Your task to perform on an android device: change the clock style Image 0: 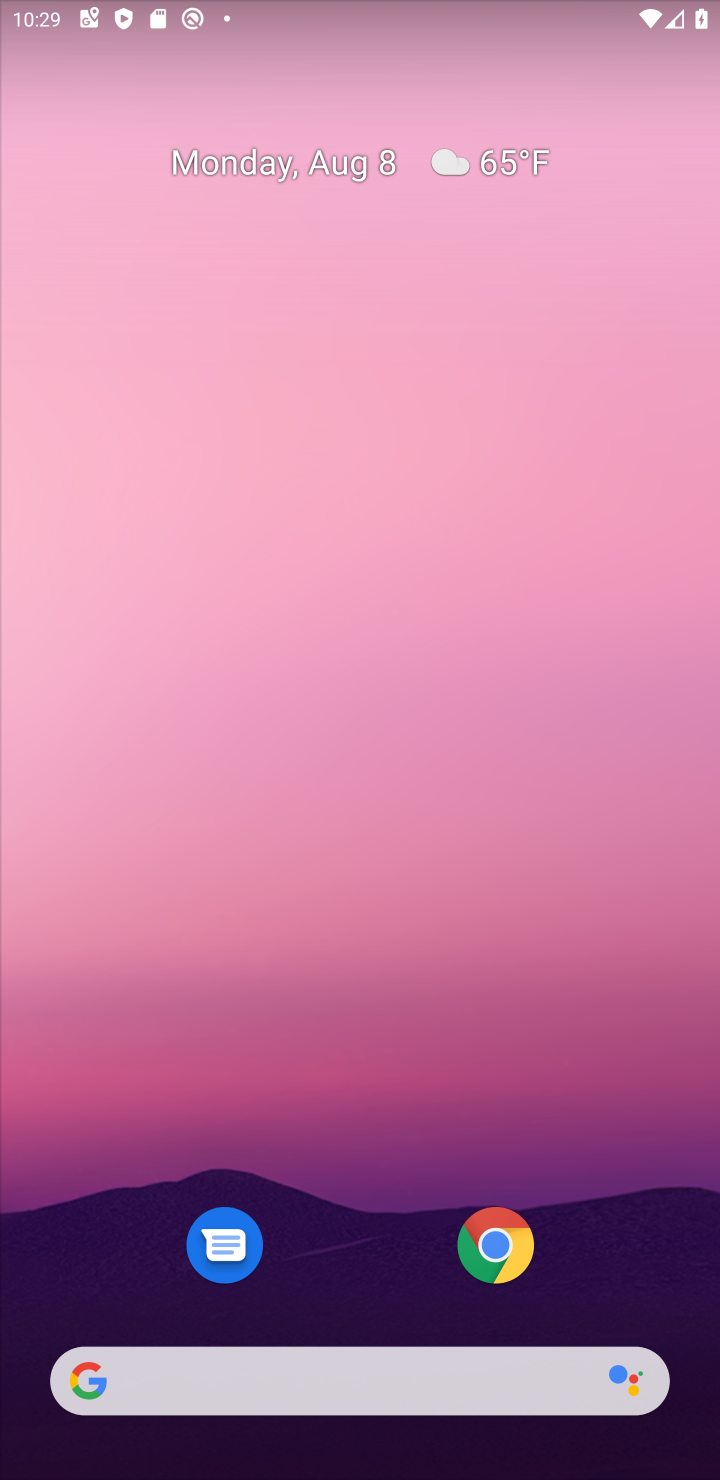
Step 0: drag from (381, 1134) to (304, 204)
Your task to perform on an android device: change the clock style Image 1: 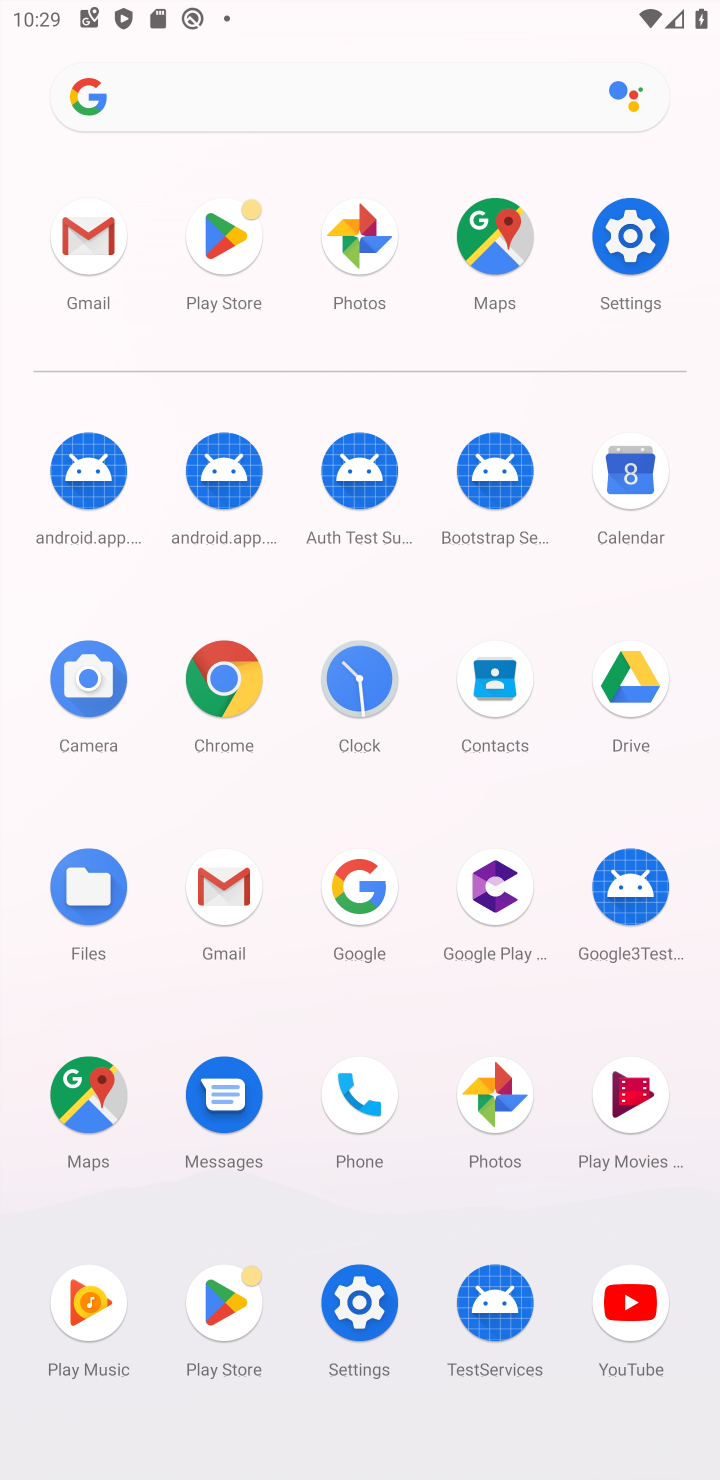
Step 1: click (360, 676)
Your task to perform on an android device: change the clock style Image 2: 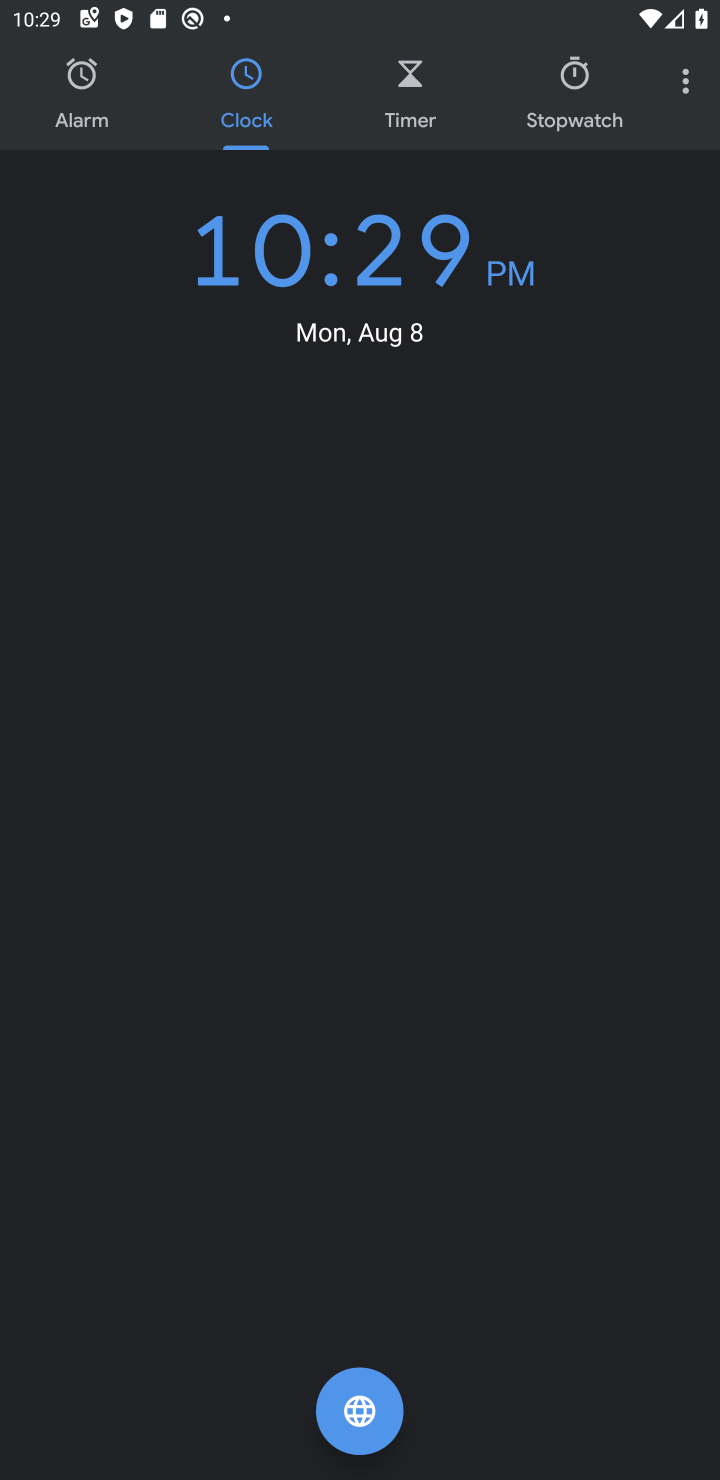
Step 2: click (691, 85)
Your task to perform on an android device: change the clock style Image 3: 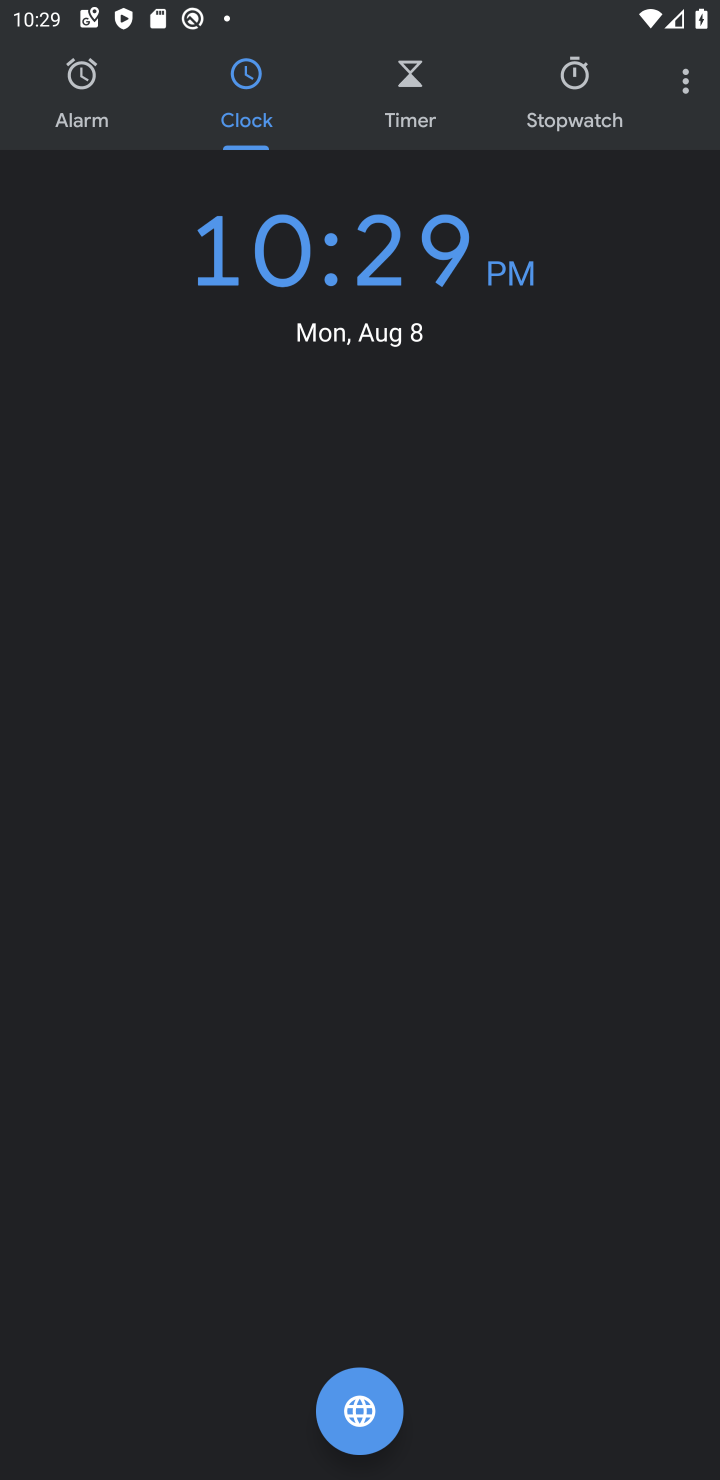
Step 3: click (681, 86)
Your task to perform on an android device: change the clock style Image 4: 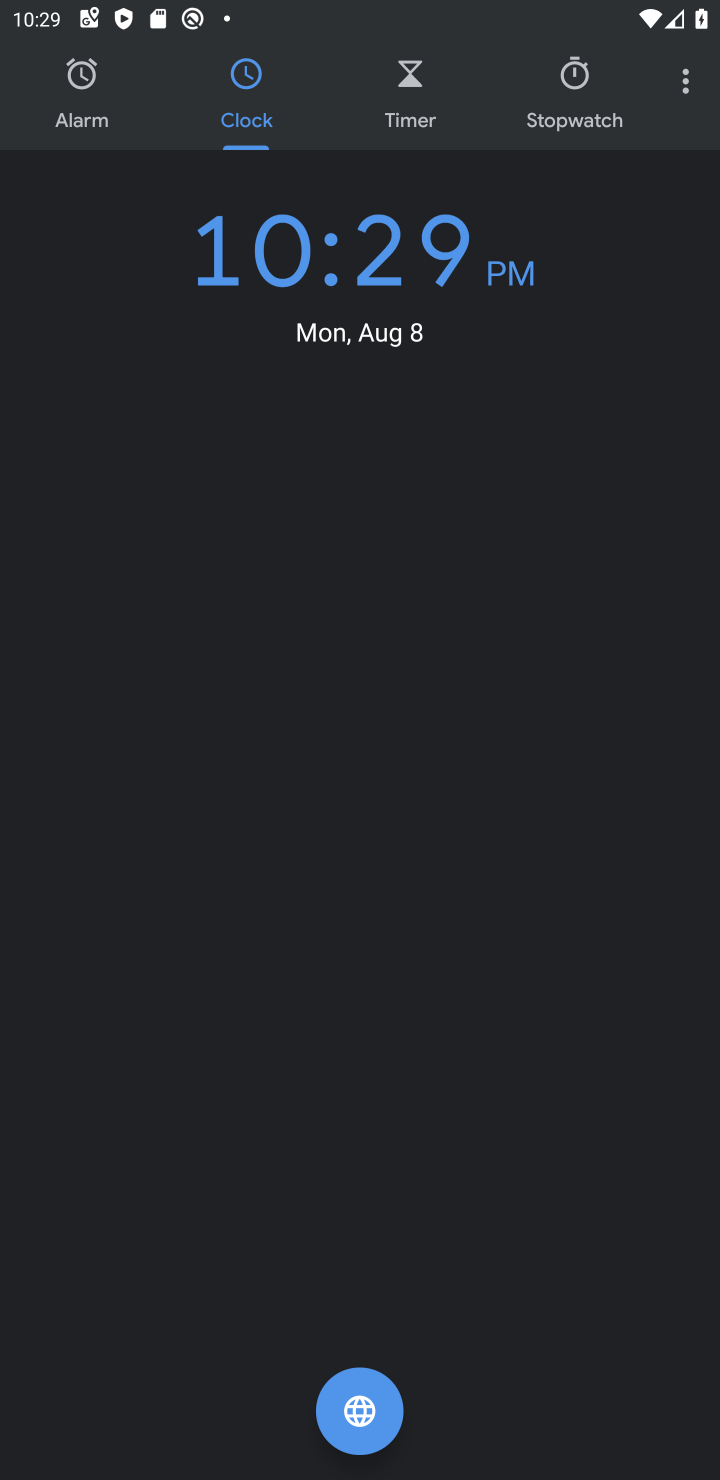
Step 4: click (680, 94)
Your task to perform on an android device: change the clock style Image 5: 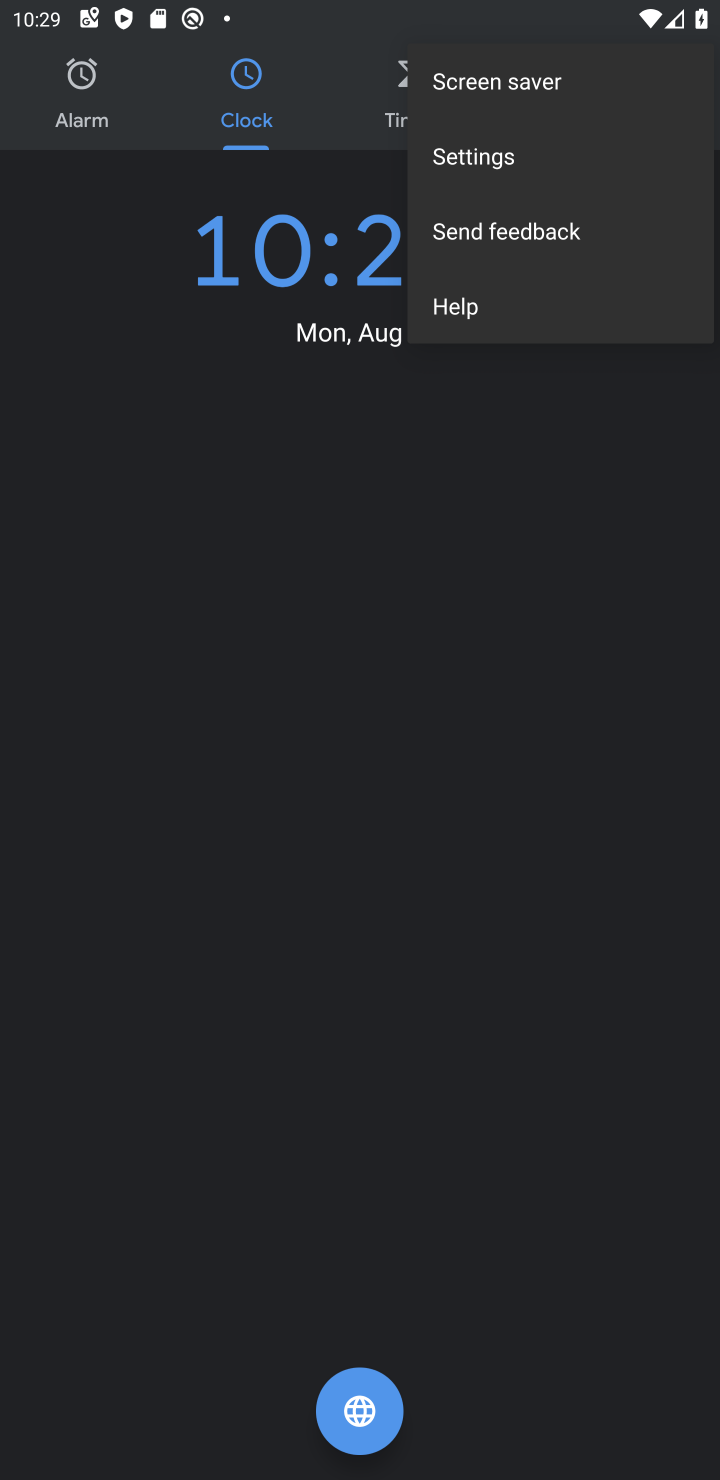
Step 5: click (490, 151)
Your task to perform on an android device: change the clock style Image 6: 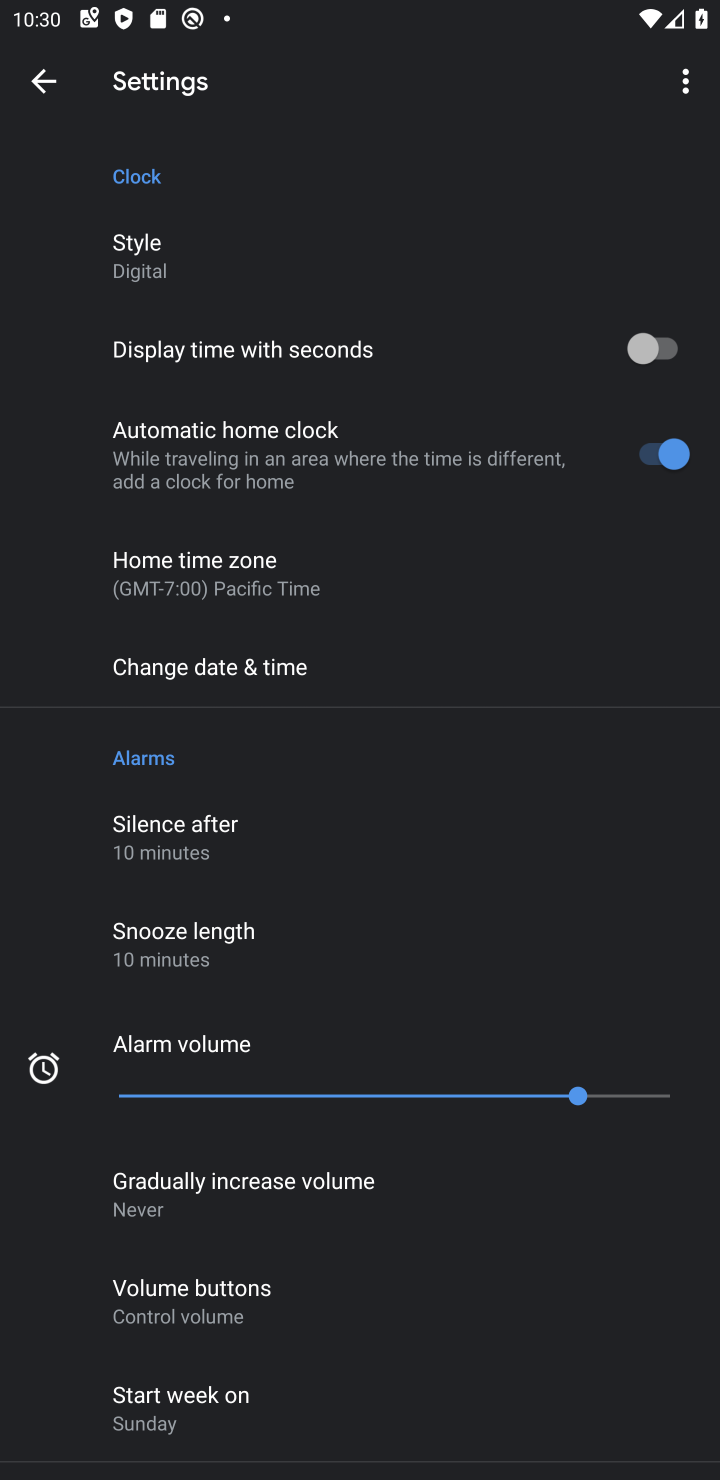
Step 6: click (154, 252)
Your task to perform on an android device: change the clock style Image 7: 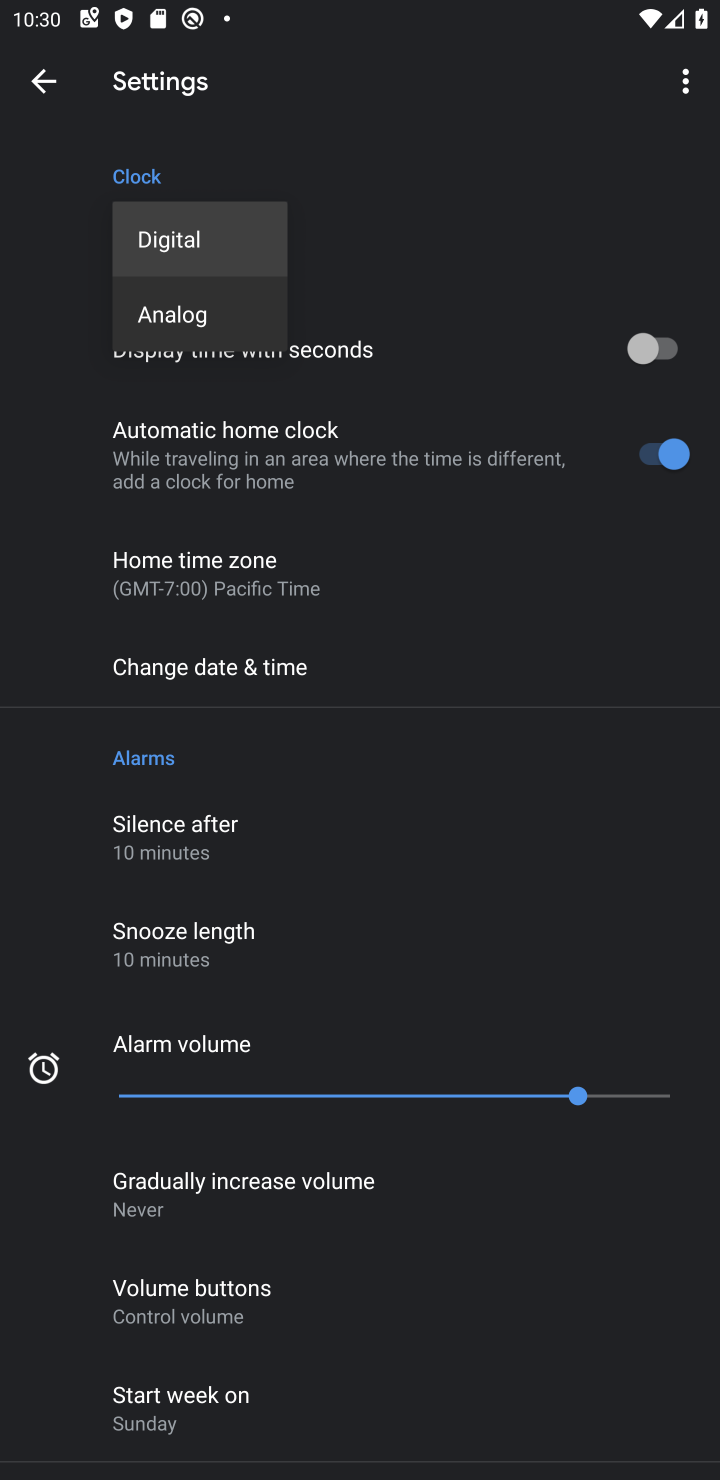
Step 7: click (205, 312)
Your task to perform on an android device: change the clock style Image 8: 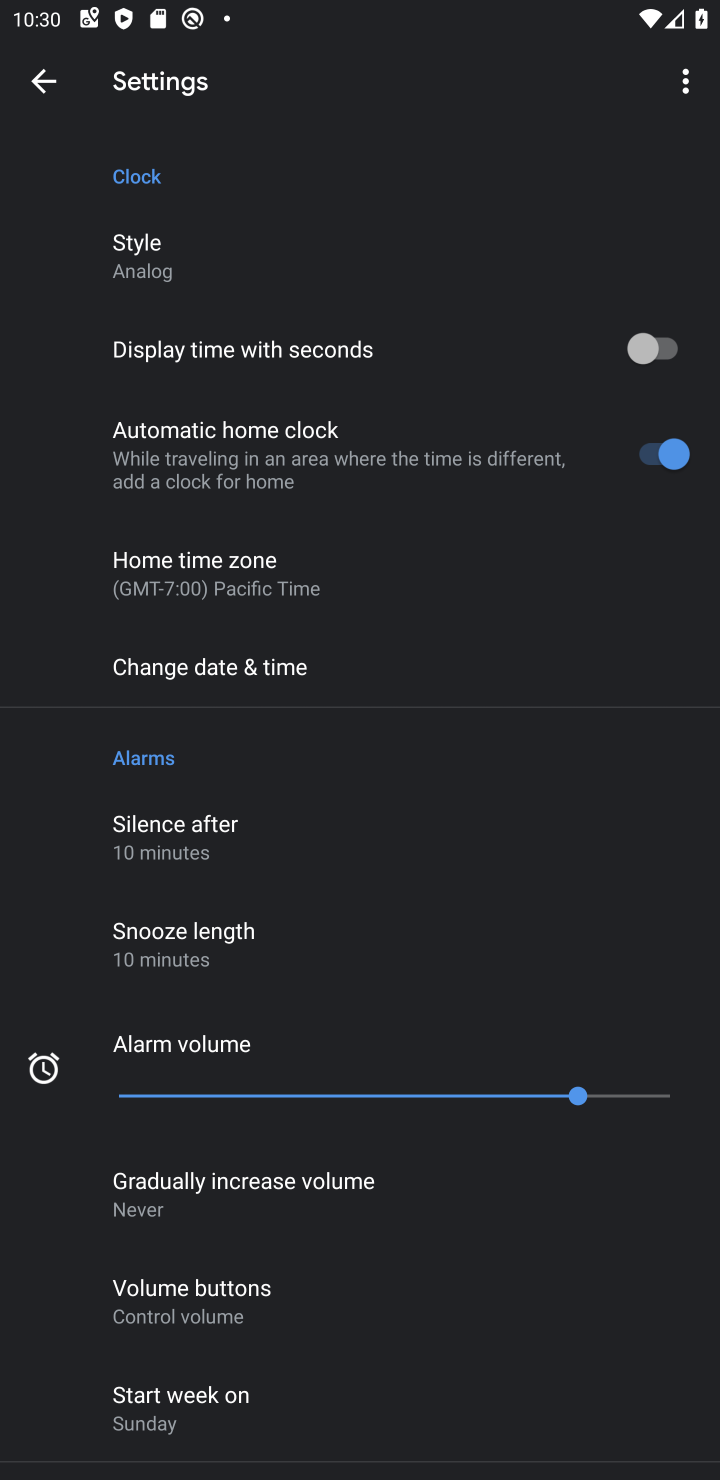
Step 8: task complete